Your task to perform on an android device: Go to wifi settings Image 0: 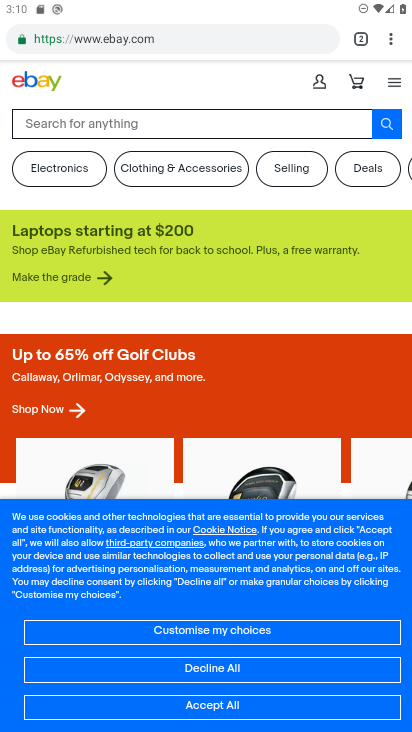
Step 0: press home button
Your task to perform on an android device: Go to wifi settings Image 1: 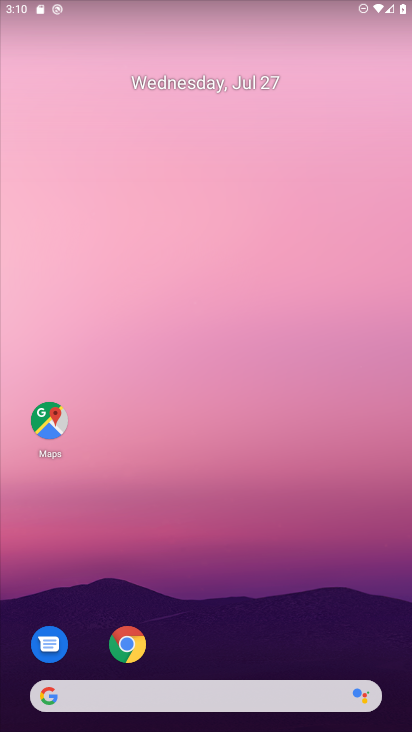
Step 1: drag from (203, 650) to (192, 6)
Your task to perform on an android device: Go to wifi settings Image 2: 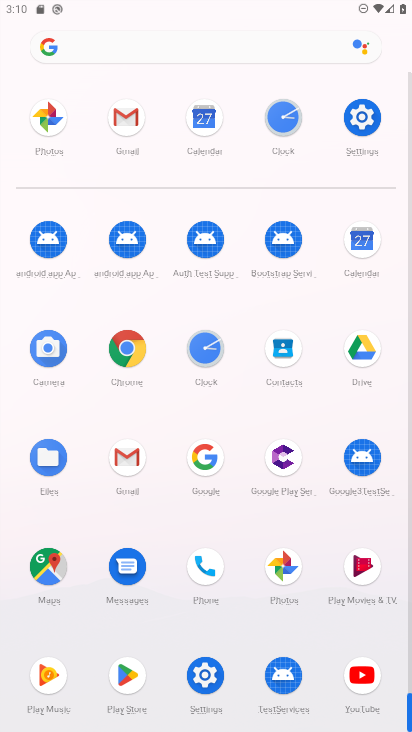
Step 2: click (207, 669)
Your task to perform on an android device: Go to wifi settings Image 3: 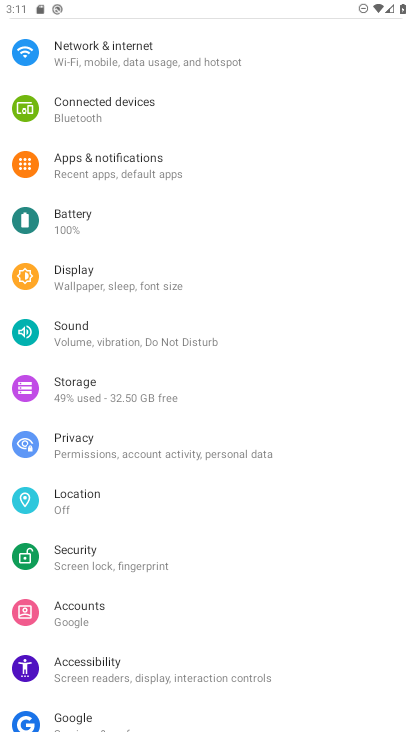
Step 3: click (166, 71)
Your task to perform on an android device: Go to wifi settings Image 4: 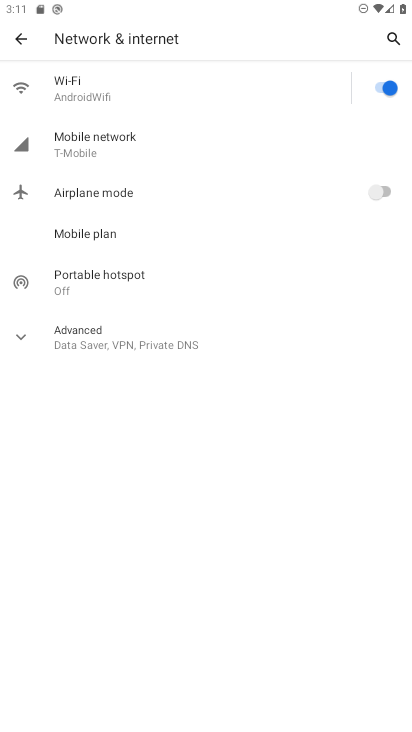
Step 4: click (150, 84)
Your task to perform on an android device: Go to wifi settings Image 5: 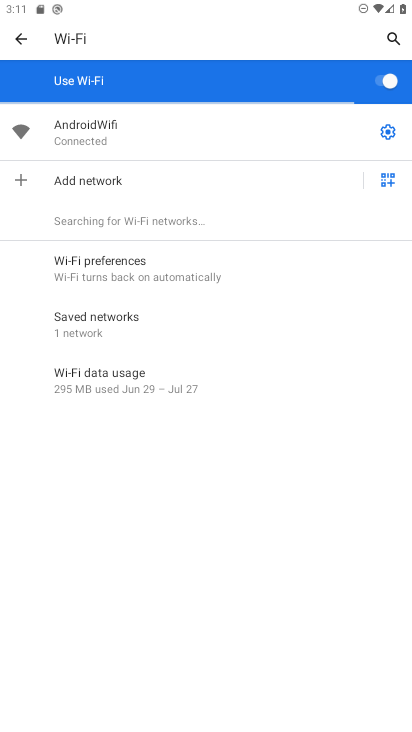
Step 5: task complete